Your task to perform on an android device: toggle pop-ups in chrome Image 0: 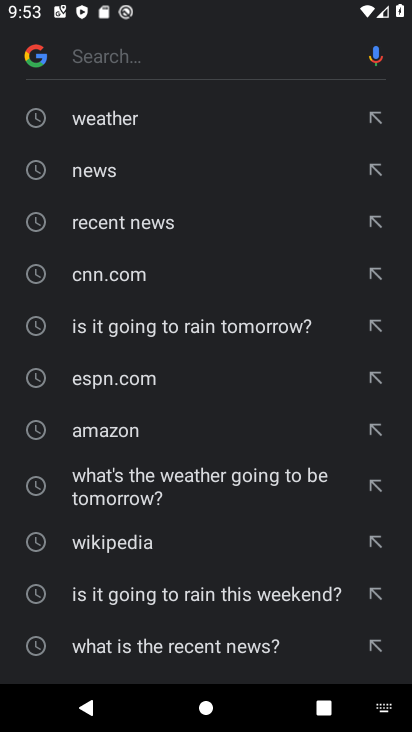
Step 0: press home button
Your task to perform on an android device: toggle pop-ups in chrome Image 1: 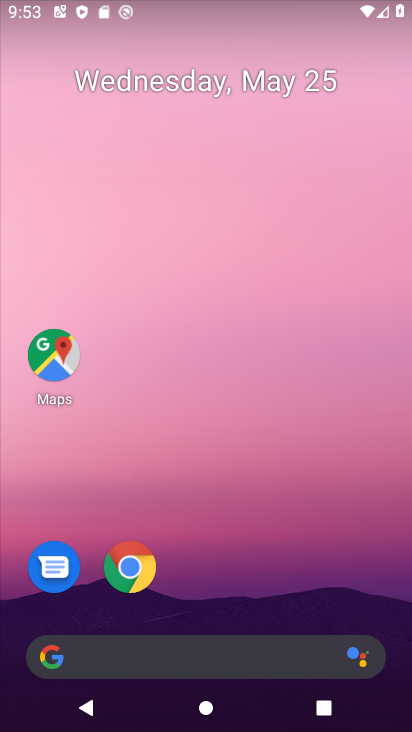
Step 1: click (135, 575)
Your task to perform on an android device: toggle pop-ups in chrome Image 2: 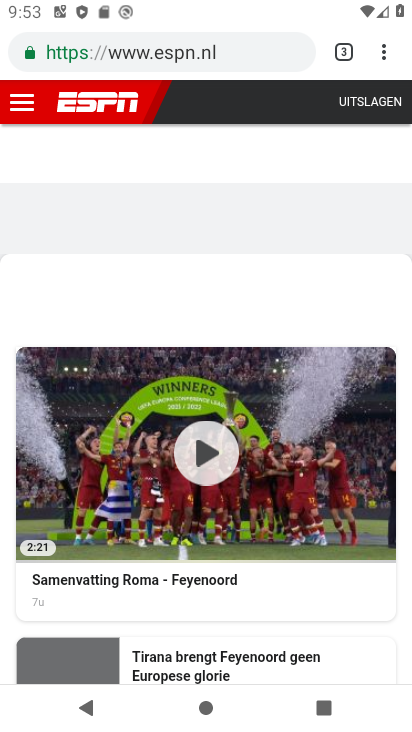
Step 2: click (388, 55)
Your task to perform on an android device: toggle pop-ups in chrome Image 3: 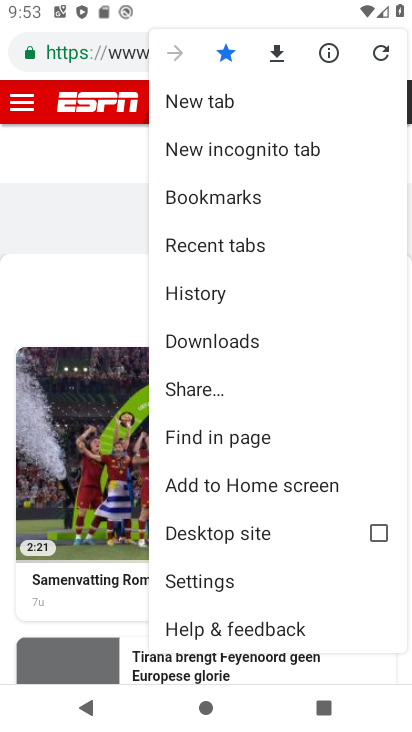
Step 3: click (220, 574)
Your task to perform on an android device: toggle pop-ups in chrome Image 4: 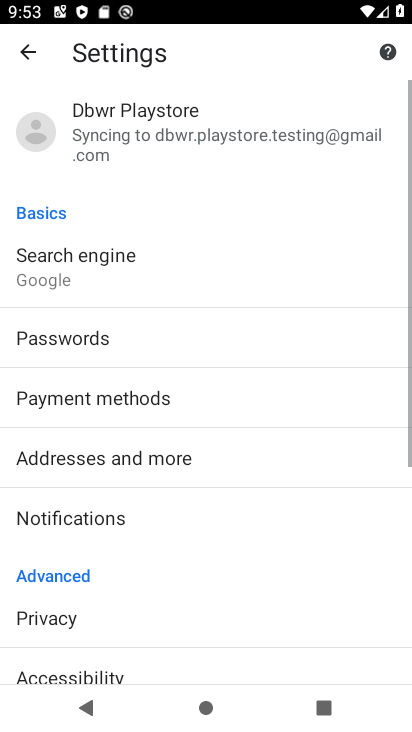
Step 4: drag from (220, 574) to (235, 185)
Your task to perform on an android device: toggle pop-ups in chrome Image 5: 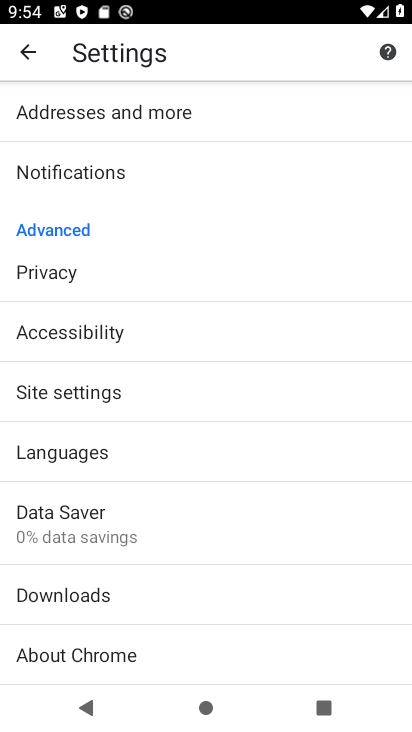
Step 5: click (146, 405)
Your task to perform on an android device: toggle pop-ups in chrome Image 6: 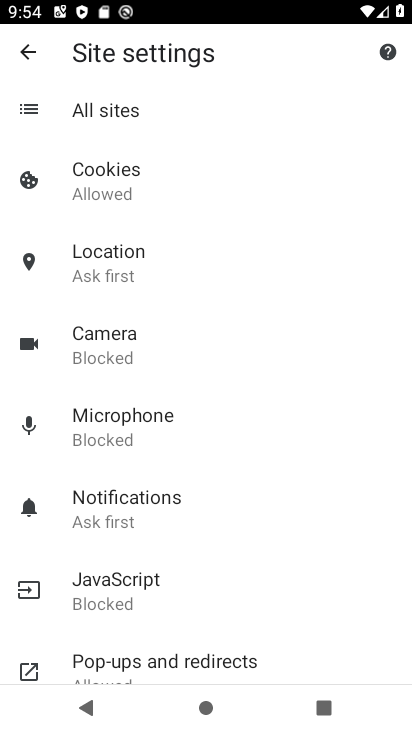
Step 6: drag from (124, 605) to (142, 410)
Your task to perform on an android device: toggle pop-ups in chrome Image 7: 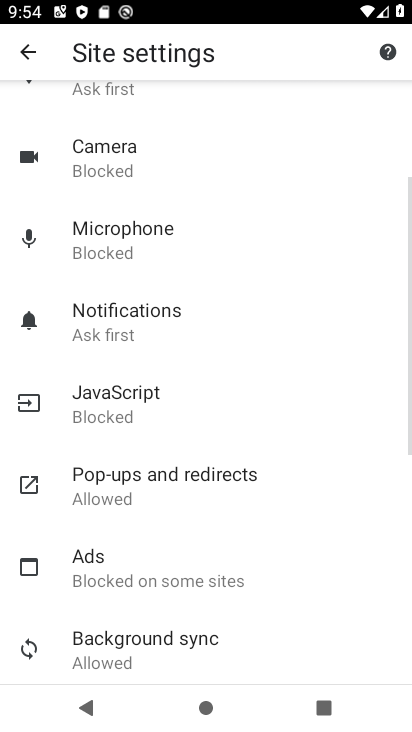
Step 7: click (194, 536)
Your task to perform on an android device: toggle pop-ups in chrome Image 8: 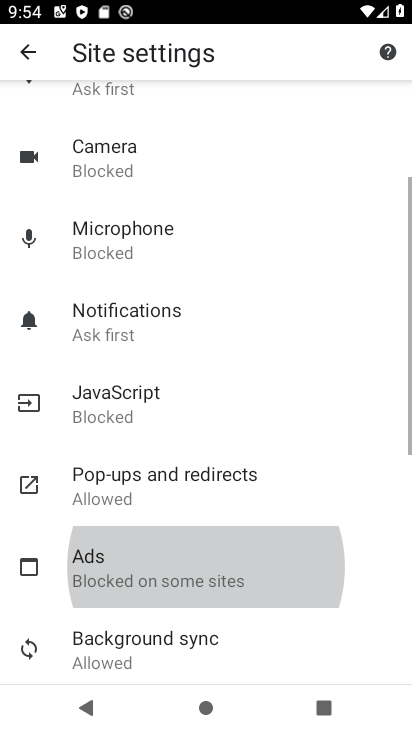
Step 8: click (194, 536)
Your task to perform on an android device: toggle pop-ups in chrome Image 9: 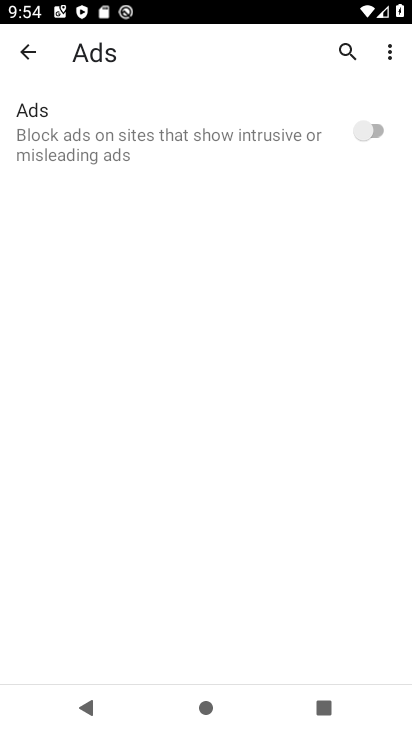
Step 9: click (26, 57)
Your task to perform on an android device: toggle pop-ups in chrome Image 10: 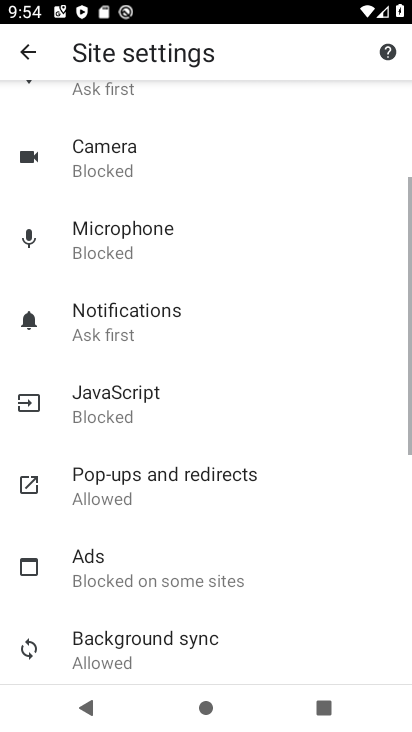
Step 10: click (232, 484)
Your task to perform on an android device: toggle pop-ups in chrome Image 11: 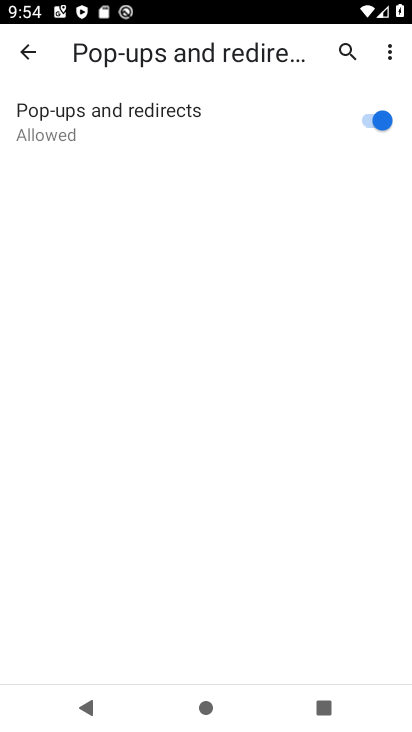
Step 11: click (373, 117)
Your task to perform on an android device: toggle pop-ups in chrome Image 12: 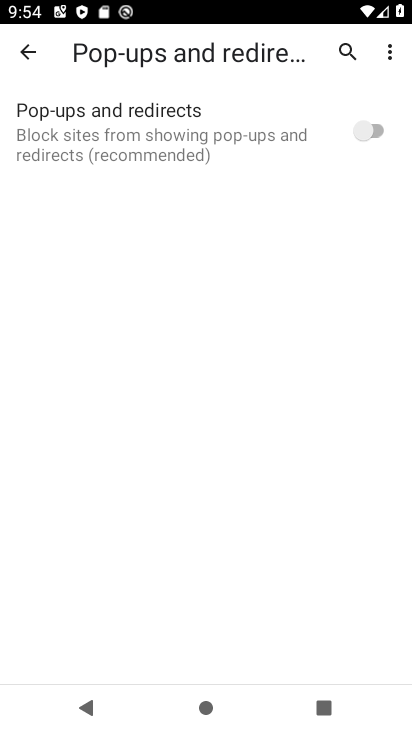
Step 12: task complete